Your task to perform on an android device: open app "Booking.com: Hotels and more" (install if not already installed) and enter user name: "misting@outlook.com" and password: "blandly" Image 0: 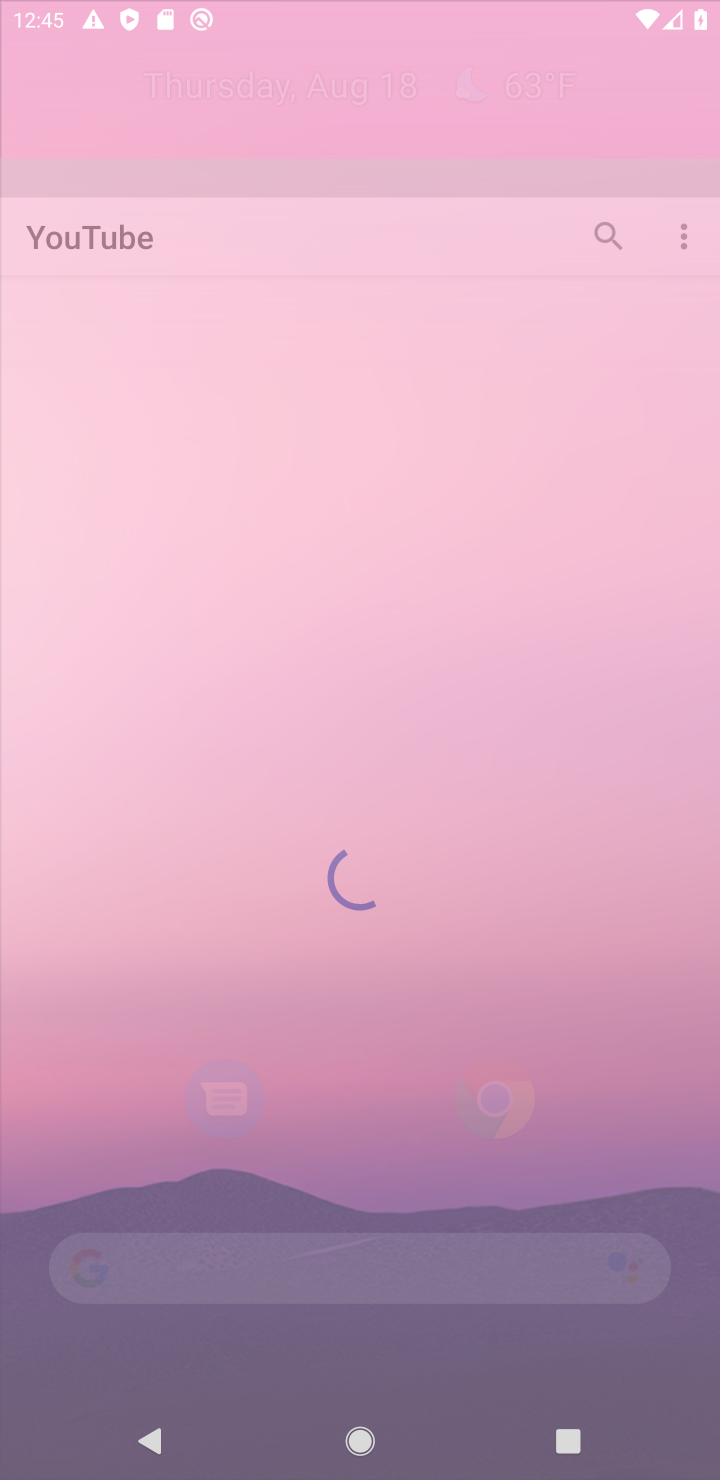
Step 0: press home button
Your task to perform on an android device: open app "Booking.com: Hotels and more" (install if not already installed) and enter user name: "misting@outlook.com" and password: "blandly" Image 1: 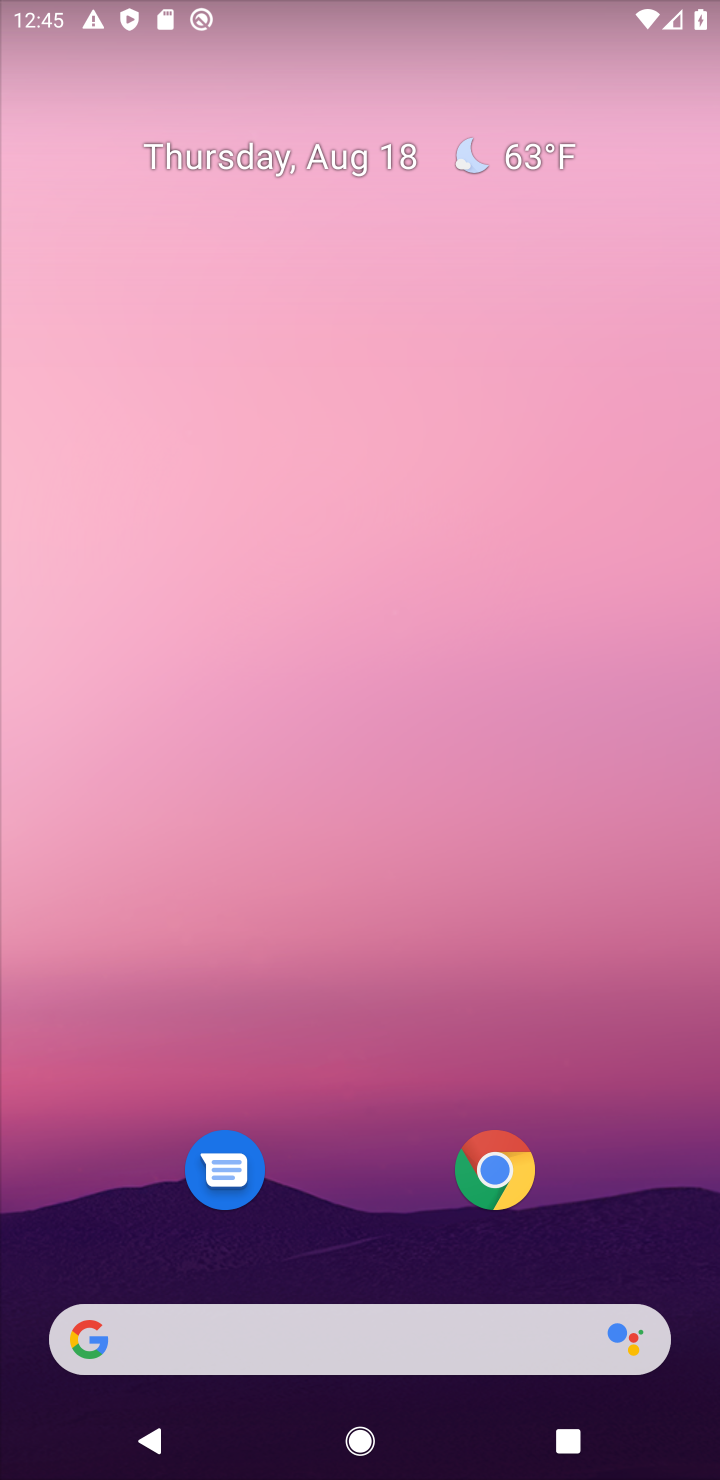
Step 1: press home button
Your task to perform on an android device: open app "Booking.com: Hotels and more" (install if not already installed) and enter user name: "misting@outlook.com" and password: "blandly" Image 2: 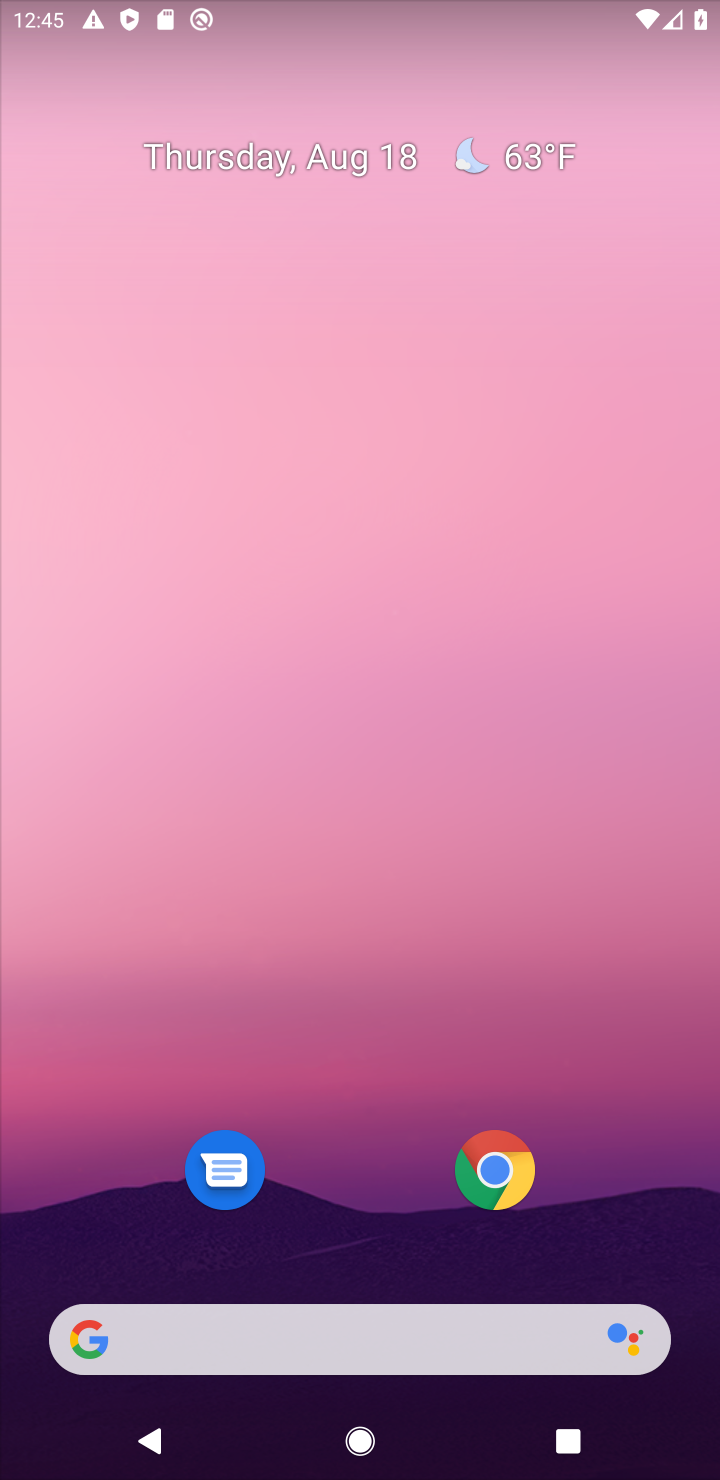
Step 2: drag from (435, 883) to (550, 253)
Your task to perform on an android device: open app "Booking.com: Hotels and more" (install if not already installed) and enter user name: "misting@outlook.com" and password: "blandly" Image 3: 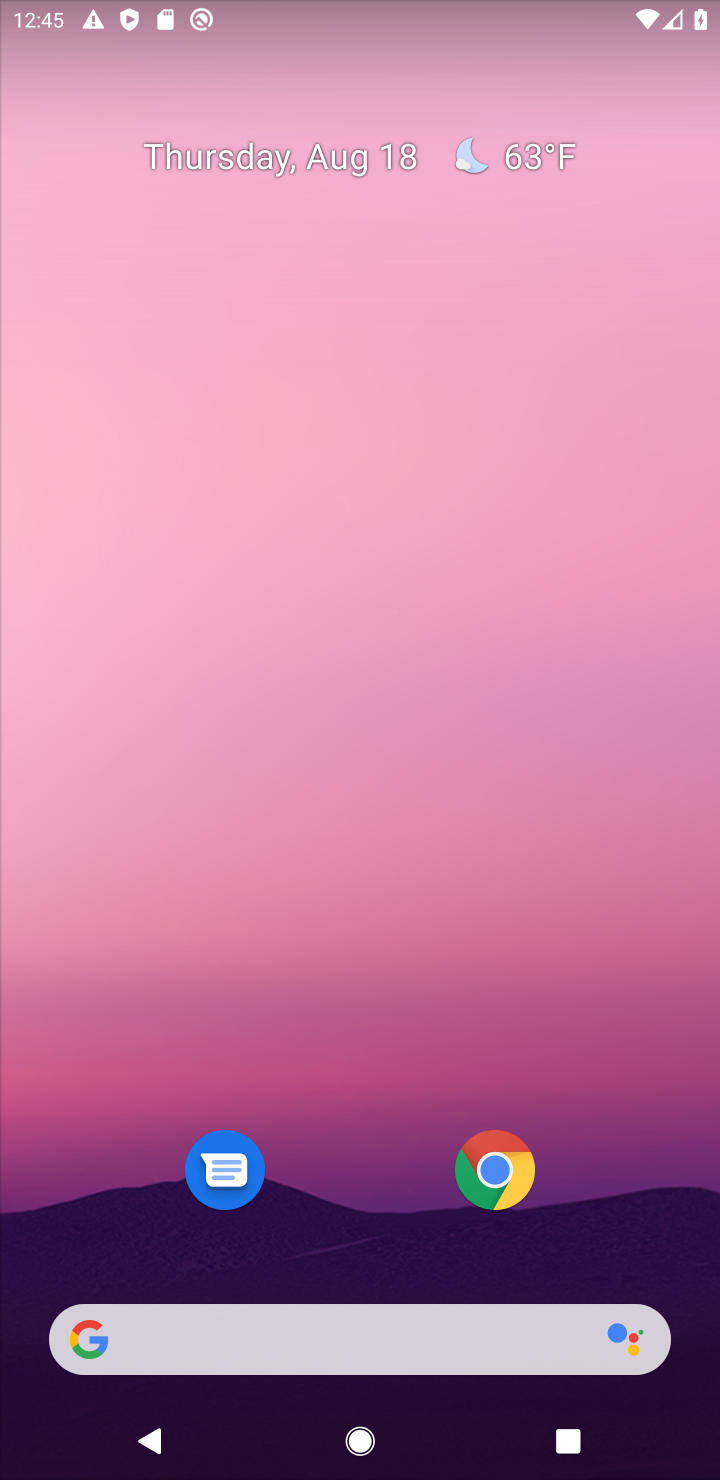
Step 3: drag from (292, 1322) to (513, 87)
Your task to perform on an android device: open app "Booking.com: Hotels and more" (install if not already installed) and enter user name: "misting@outlook.com" and password: "blandly" Image 4: 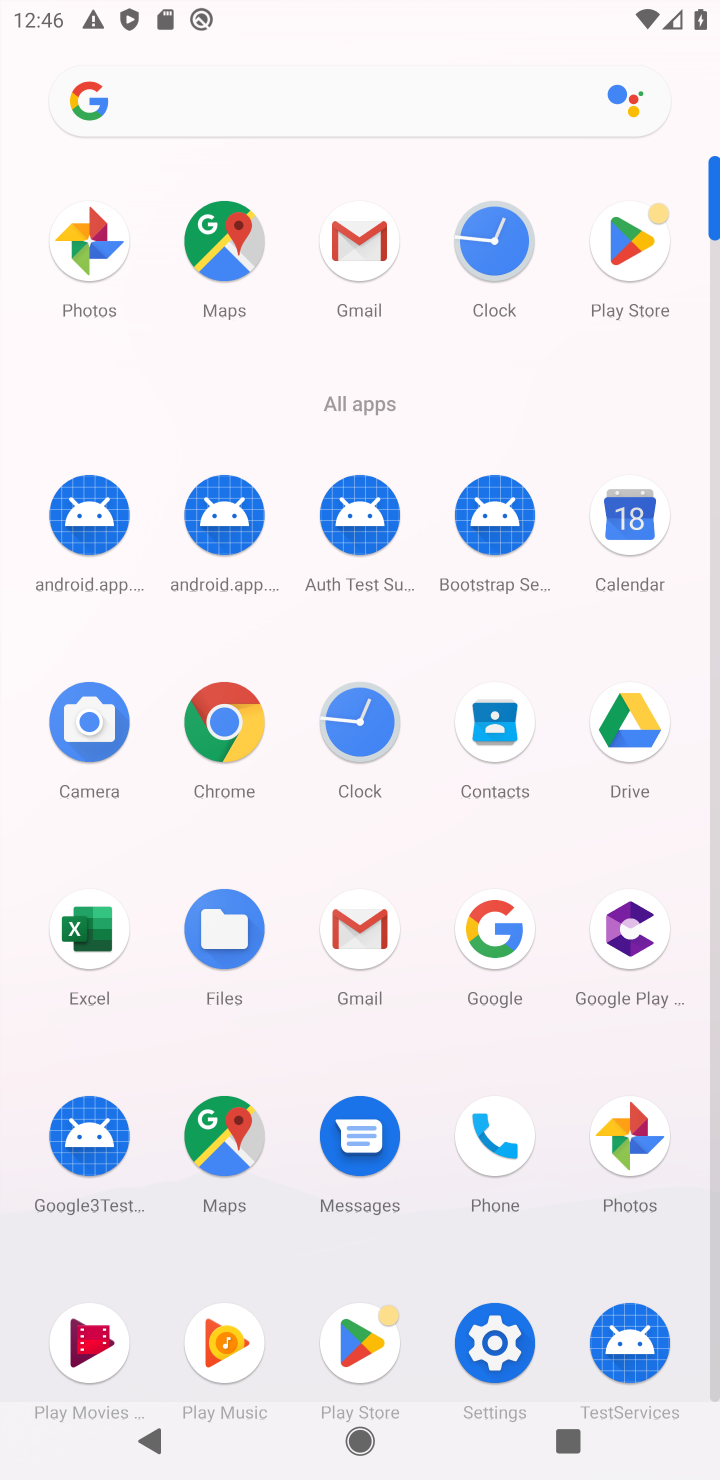
Step 4: drag from (356, 1337) to (514, 660)
Your task to perform on an android device: open app "Booking.com: Hotels and more" (install if not already installed) and enter user name: "misting@outlook.com" and password: "blandly" Image 5: 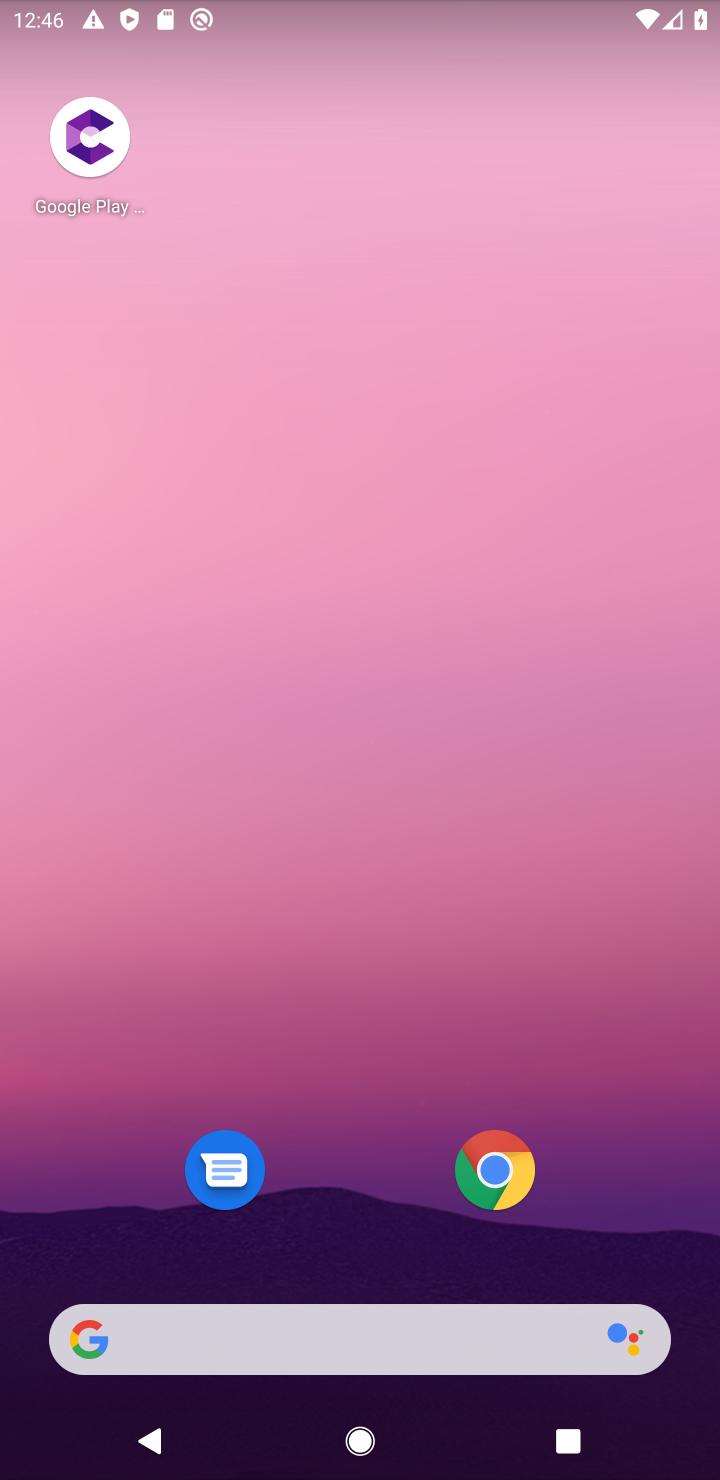
Step 5: press home button
Your task to perform on an android device: open app "Booking.com: Hotels and more" (install if not already installed) and enter user name: "misting@outlook.com" and password: "blandly" Image 6: 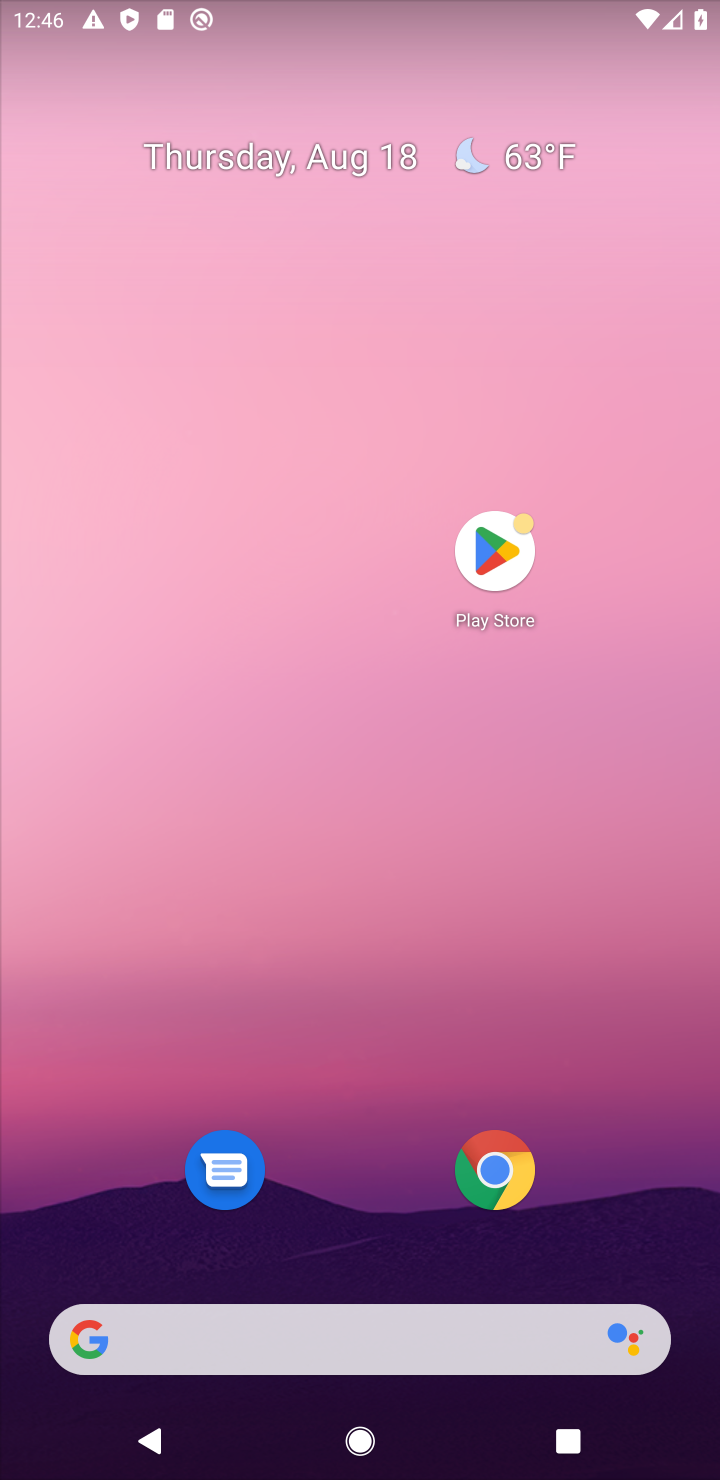
Step 6: press home button
Your task to perform on an android device: open app "Booking.com: Hotels and more" (install if not already installed) and enter user name: "misting@outlook.com" and password: "blandly" Image 7: 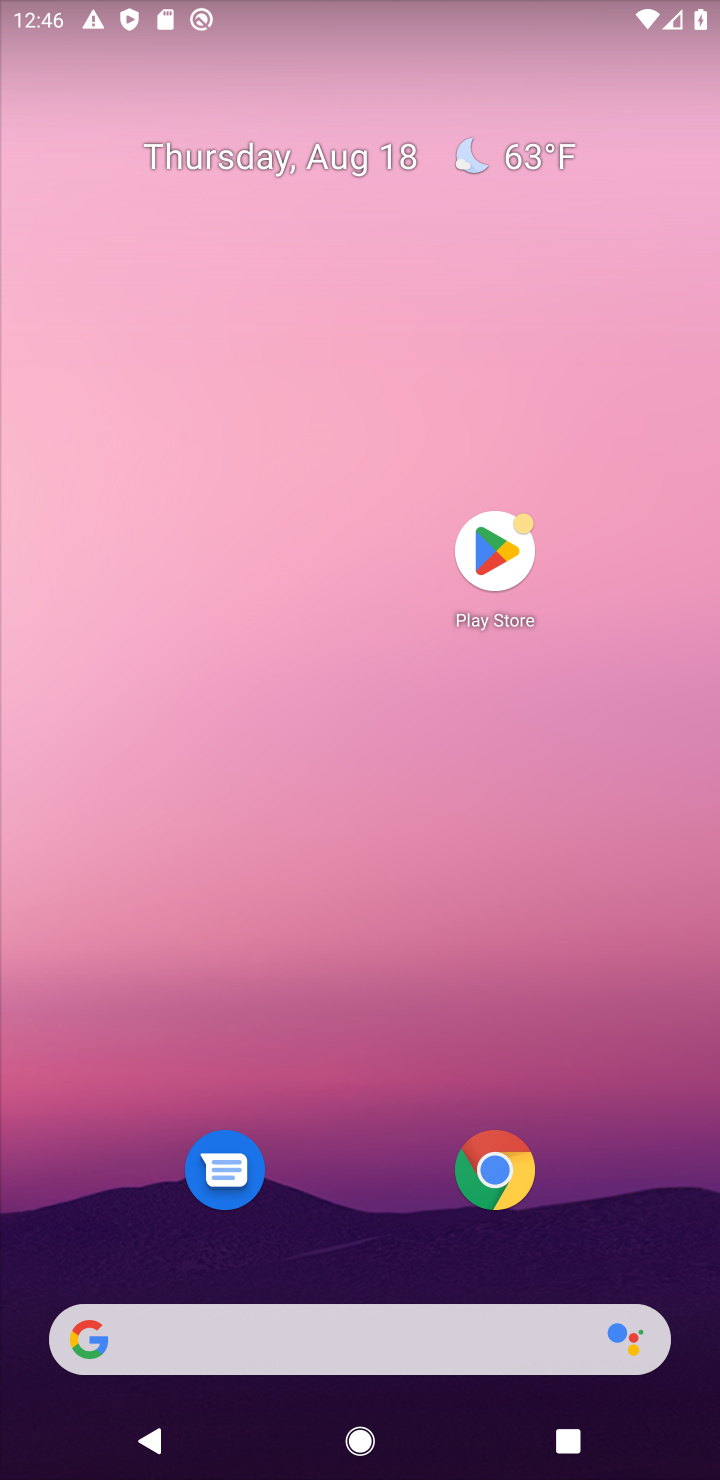
Step 7: click (489, 570)
Your task to perform on an android device: open app "Booking.com: Hotels and more" (install if not already installed) and enter user name: "misting@outlook.com" and password: "blandly" Image 8: 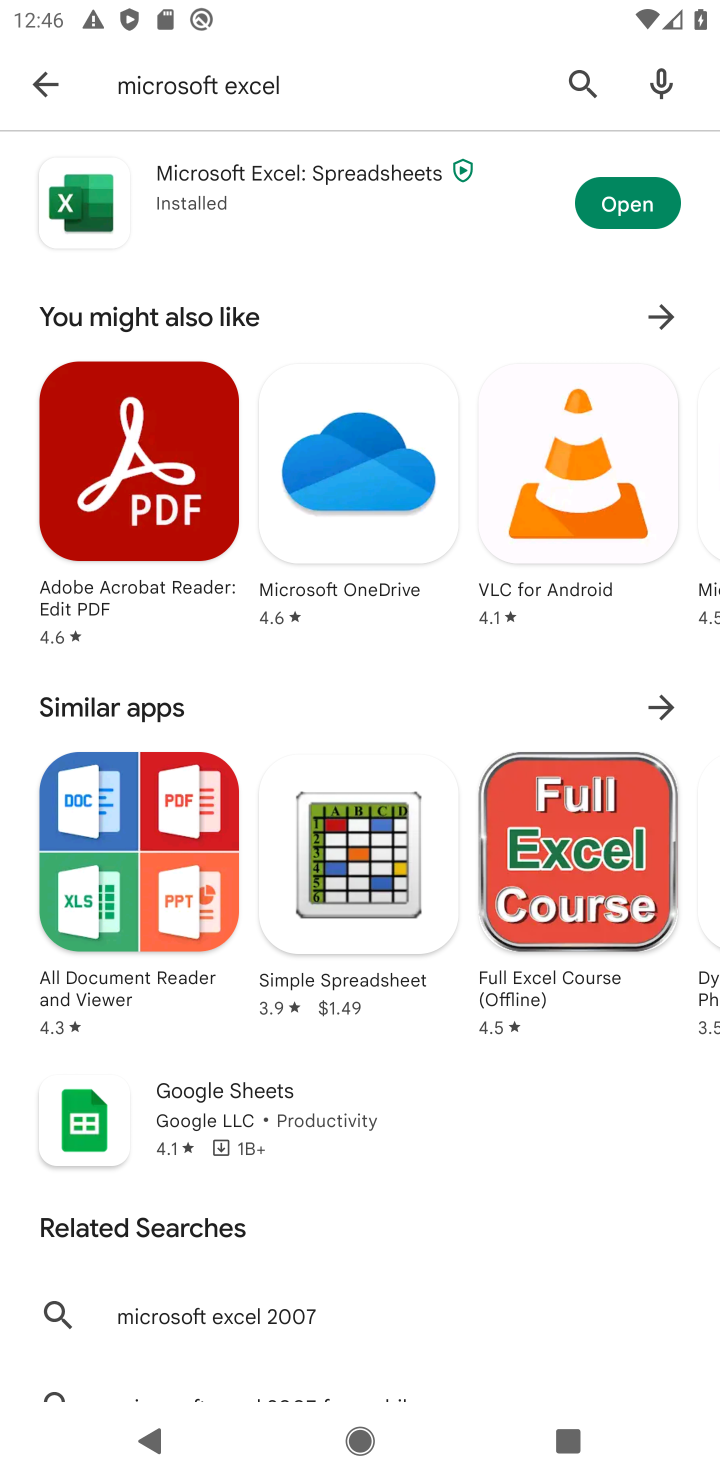
Step 8: click (583, 79)
Your task to perform on an android device: open app "Booking.com: Hotels and more" (install if not already installed) and enter user name: "misting@outlook.com" and password: "blandly" Image 9: 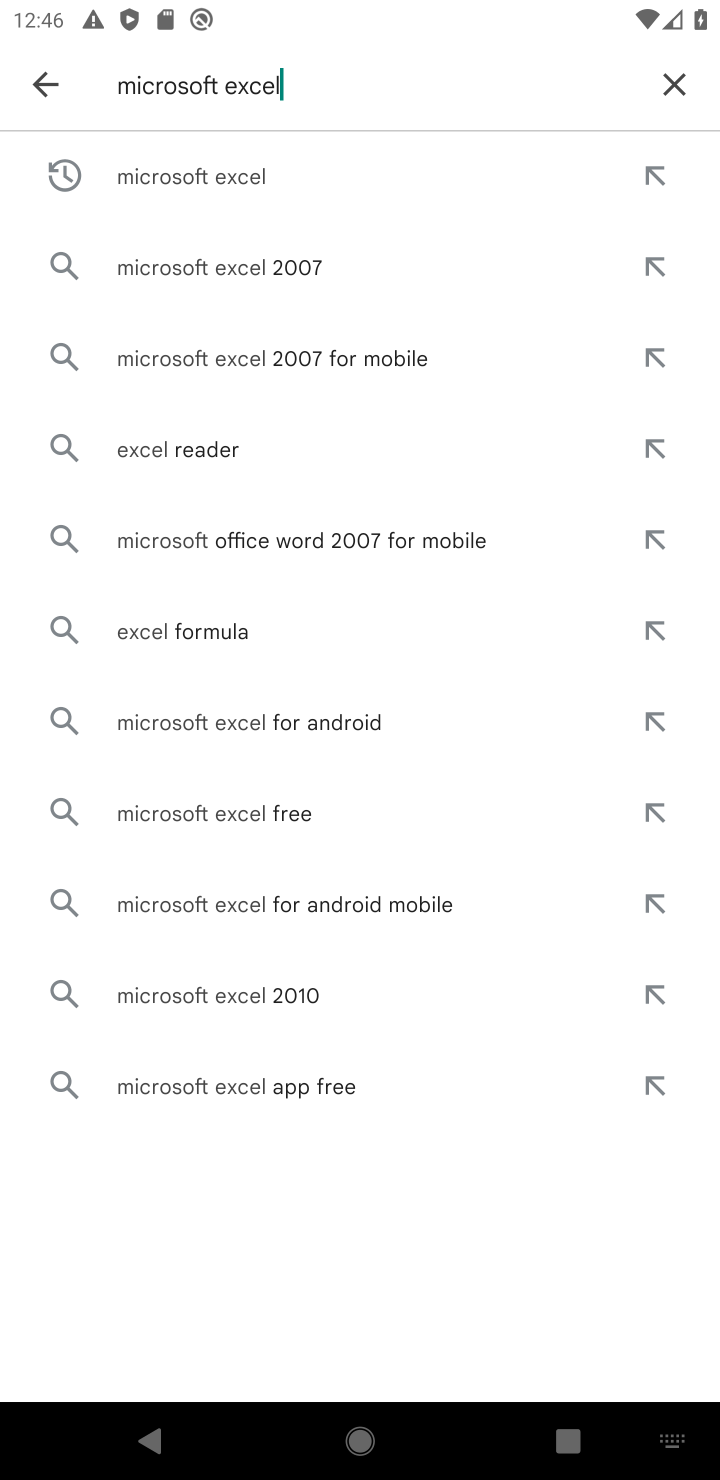
Step 9: click (674, 86)
Your task to perform on an android device: open app "Booking.com: Hotels and more" (install if not already installed) and enter user name: "misting@outlook.com" and password: "blandly" Image 10: 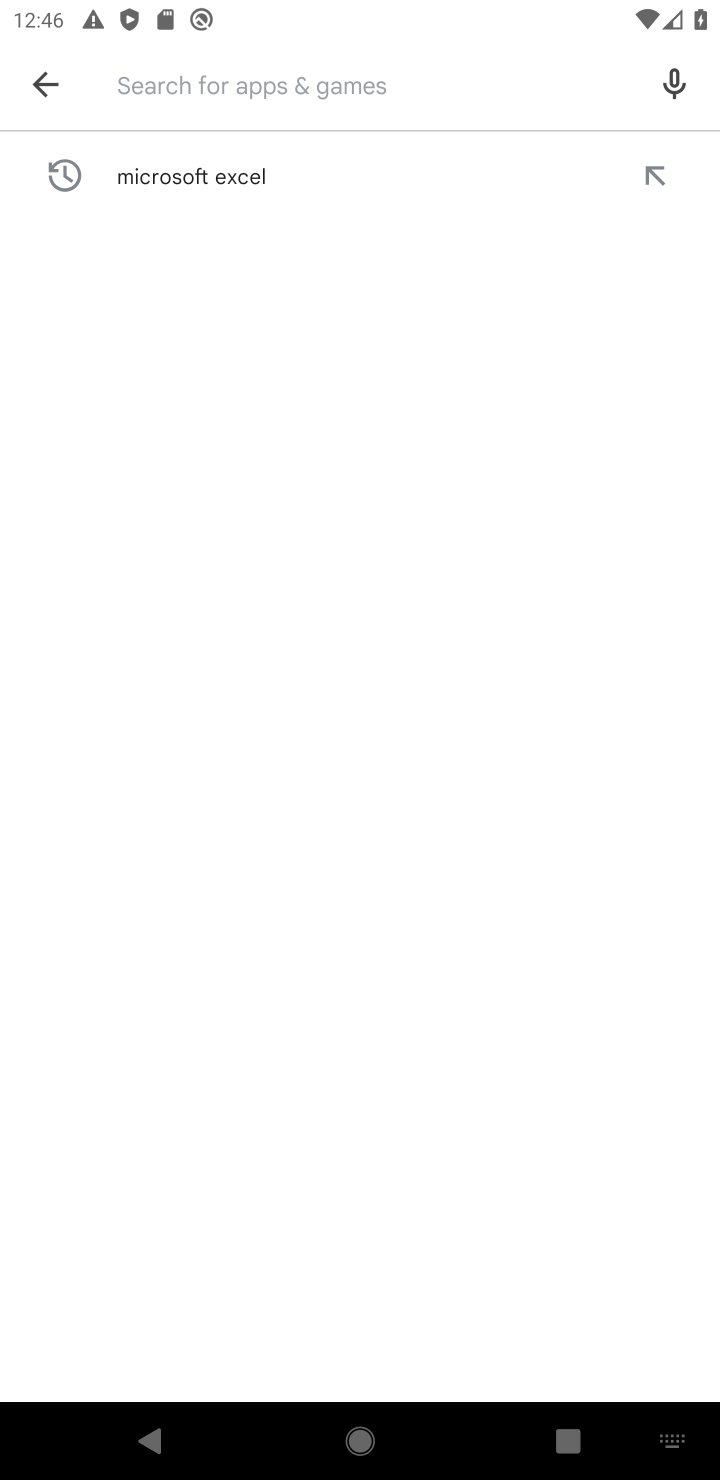
Step 10: type "Booking.com: Hotels and more"
Your task to perform on an android device: open app "Booking.com: Hotels and more" (install if not already installed) and enter user name: "misting@outlook.com" and password: "blandly" Image 11: 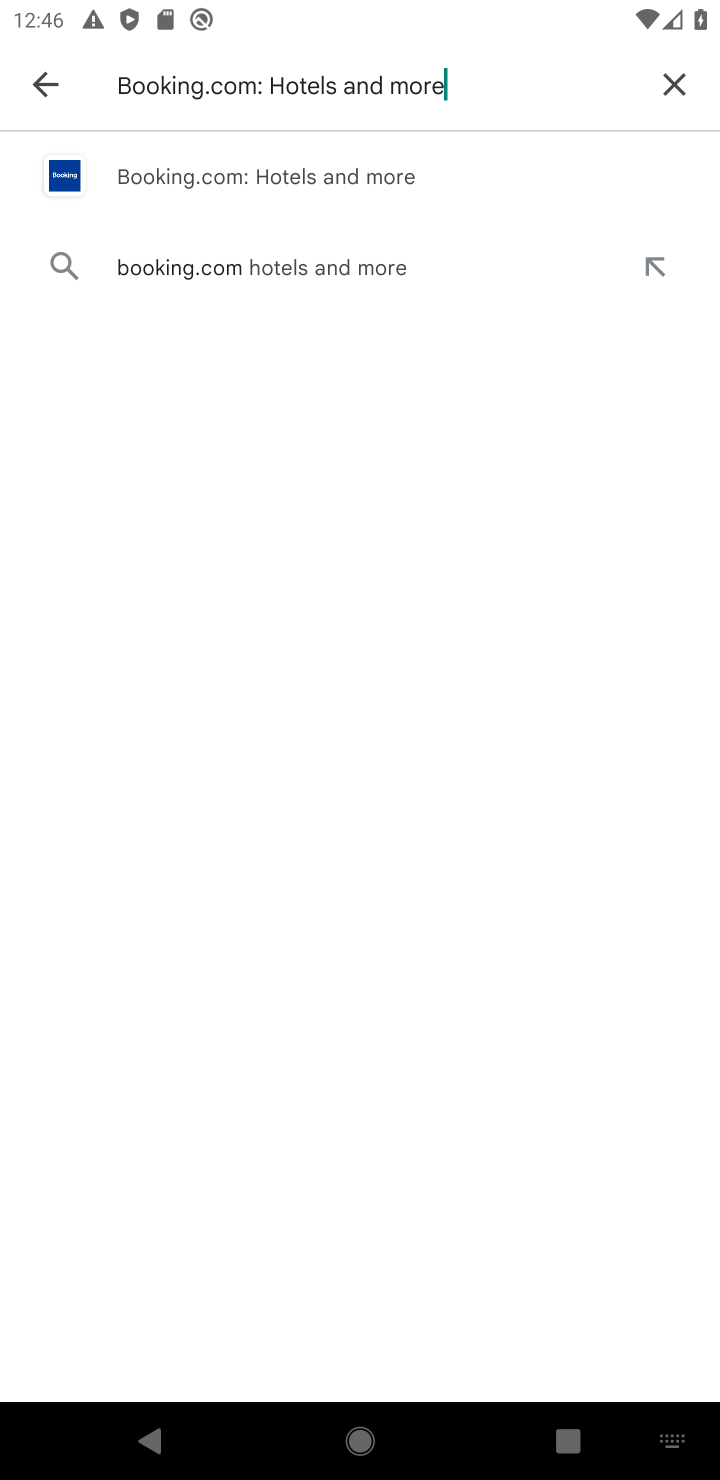
Step 11: click (209, 169)
Your task to perform on an android device: open app "Booking.com: Hotels and more" (install if not already installed) and enter user name: "misting@outlook.com" and password: "blandly" Image 12: 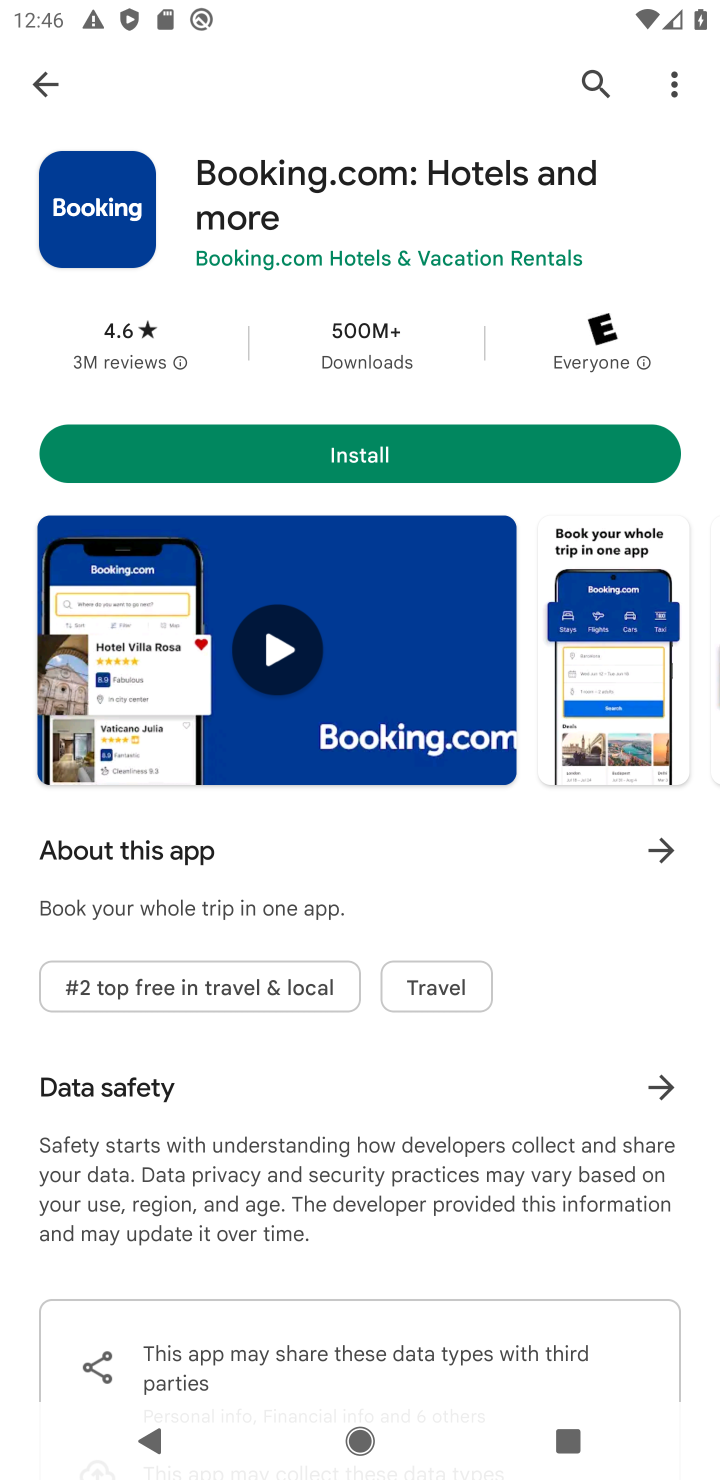
Step 12: click (379, 454)
Your task to perform on an android device: open app "Booking.com: Hotels and more" (install if not already installed) and enter user name: "misting@outlook.com" and password: "blandly" Image 13: 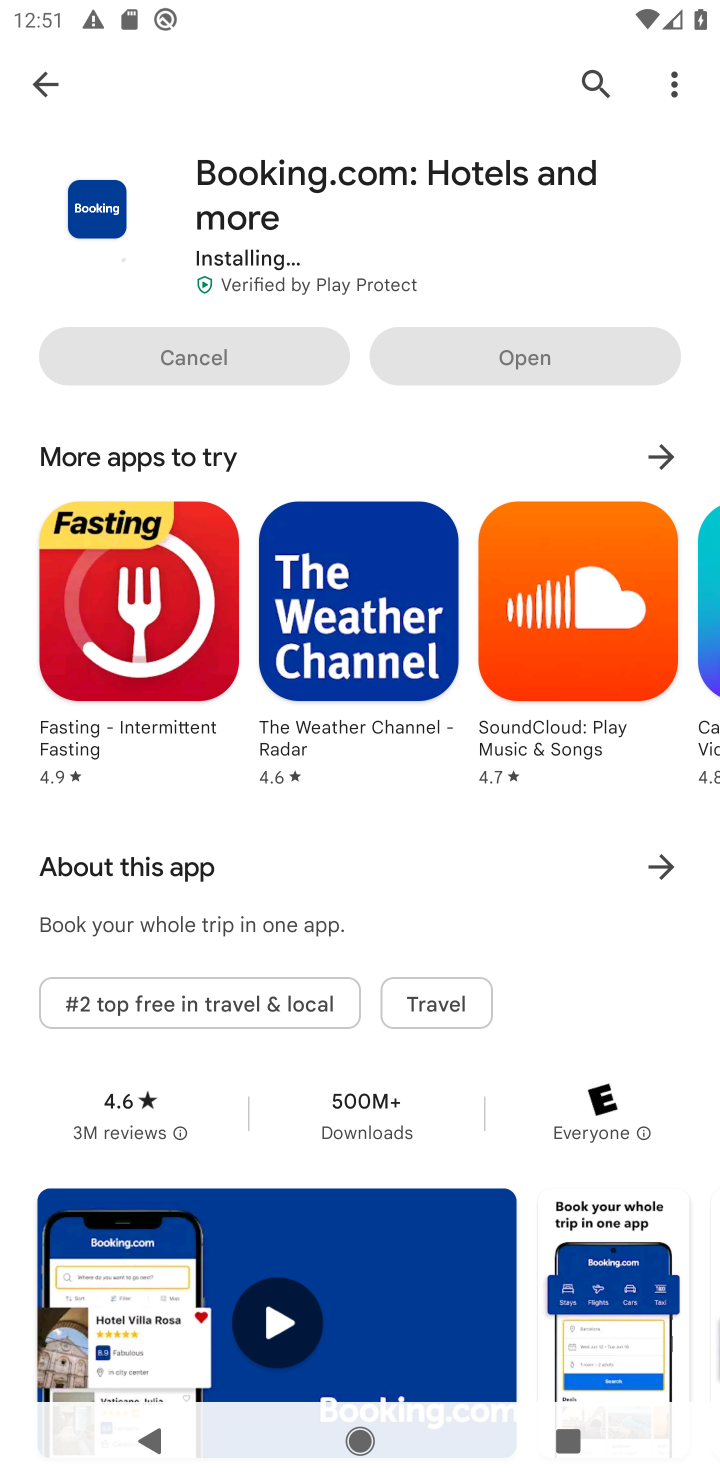
Step 13: task complete